Your task to perform on an android device: clear all cookies in the chrome app Image 0: 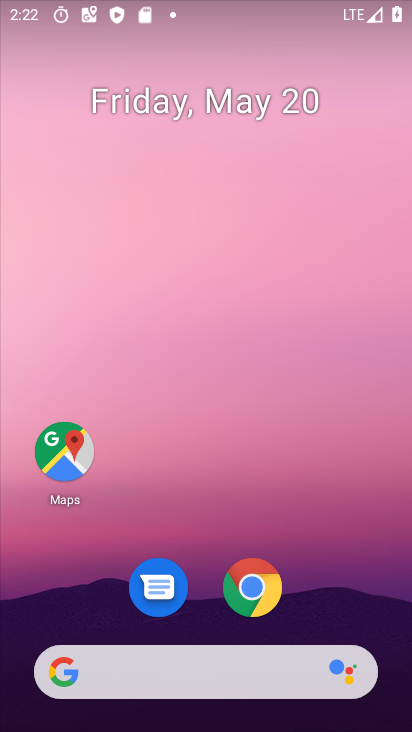
Step 0: drag from (327, 457) to (360, 79)
Your task to perform on an android device: clear all cookies in the chrome app Image 1: 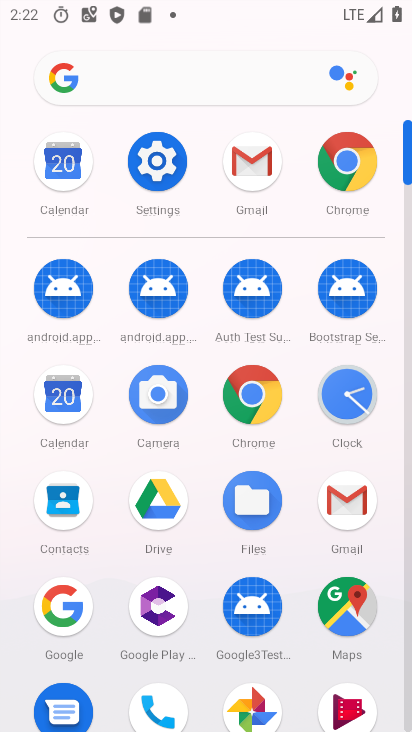
Step 1: click (256, 389)
Your task to perform on an android device: clear all cookies in the chrome app Image 2: 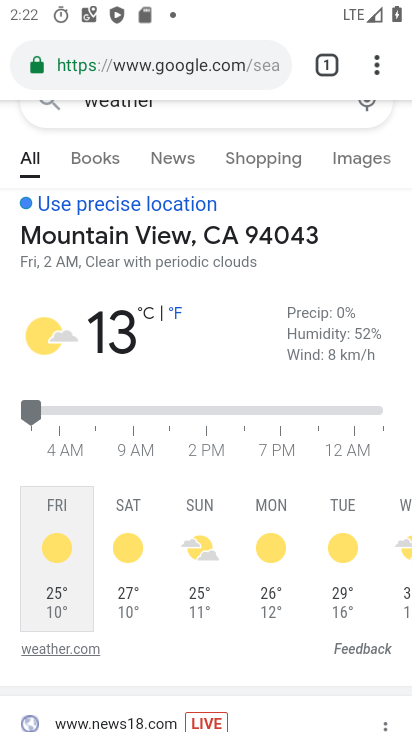
Step 2: drag from (213, 366) to (273, 425)
Your task to perform on an android device: clear all cookies in the chrome app Image 3: 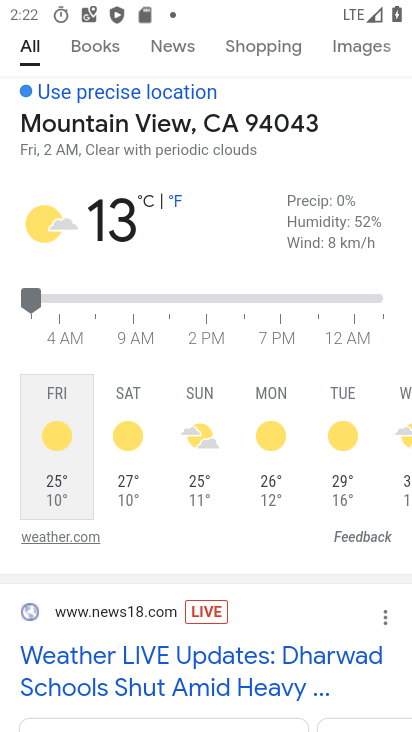
Step 3: drag from (340, 144) to (271, 546)
Your task to perform on an android device: clear all cookies in the chrome app Image 4: 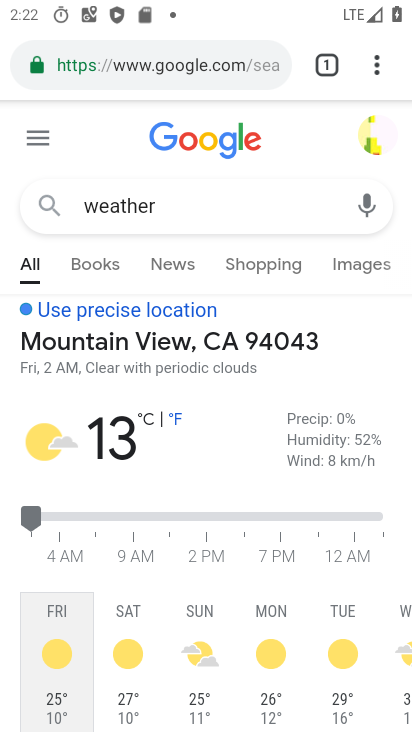
Step 4: click (378, 68)
Your task to perform on an android device: clear all cookies in the chrome app Image 5: 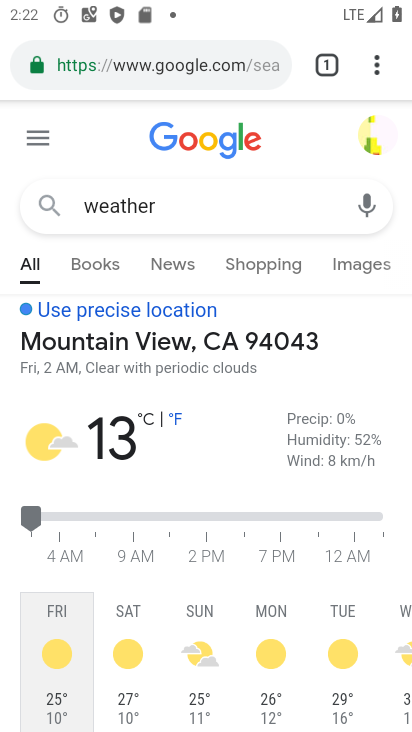
Step 5: drag from (376, 69) to (165, 351)
Your task to perform on an android device: clear all cookies in the chrome app Image 6: 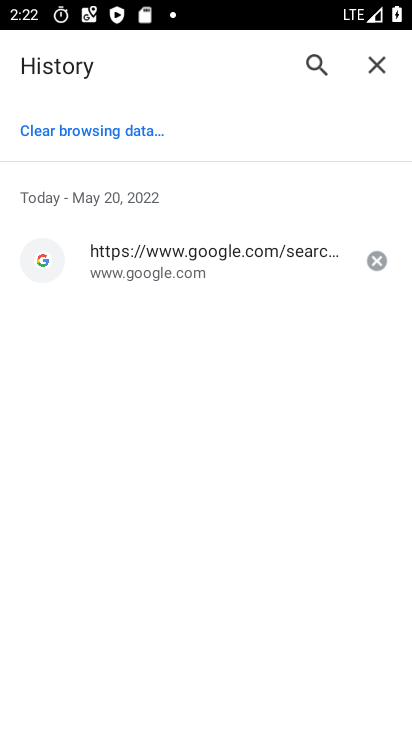
Step 6: click (133, 133)
Your task to perform on an android device: clear all cookies in the chrome app Image 7: 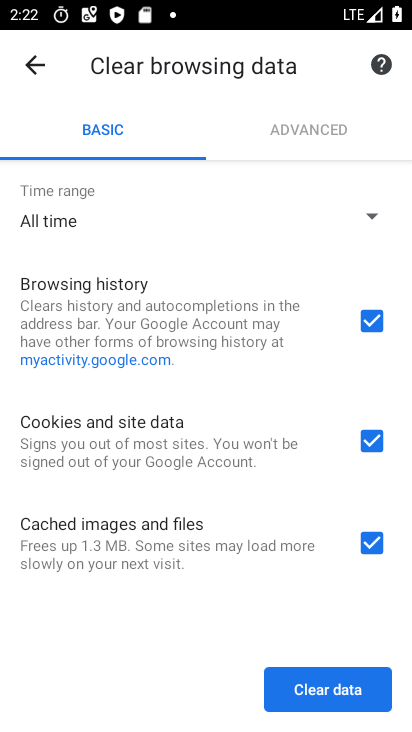
Step 7: drag from (260, 502) to (250, 130)
Your task to perform on an android device: clear all cookies in the chrome app Image 8: 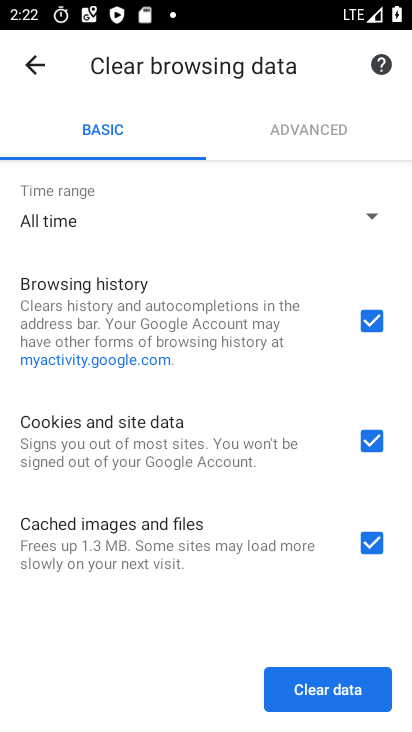
Step 8: click (361, 694)
Your task to perform on an android device: clear all cookies in the chrome app Image 9: 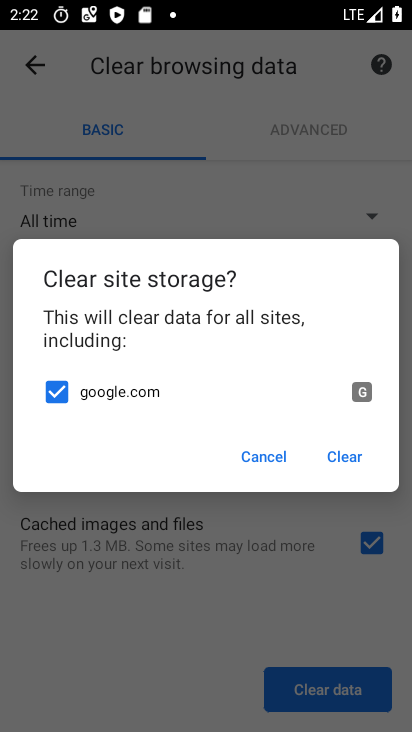
Step 9: click (354, 459)
Your task to perform on an android device: clear all cookies in the chrome app Image 10: 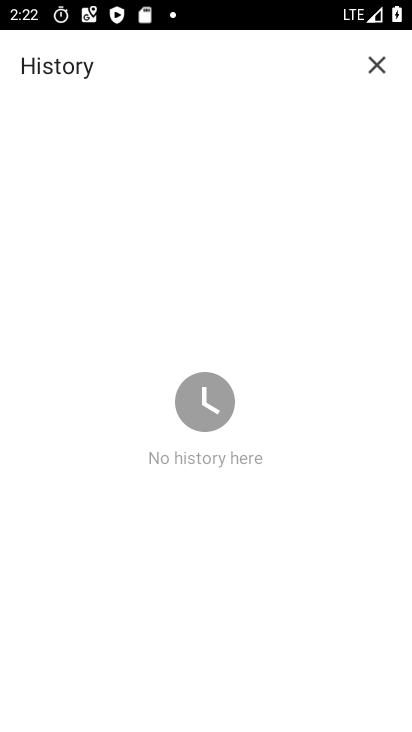
Step 10: task complete